Your task to perform on an android device: Check the weather Image 0: 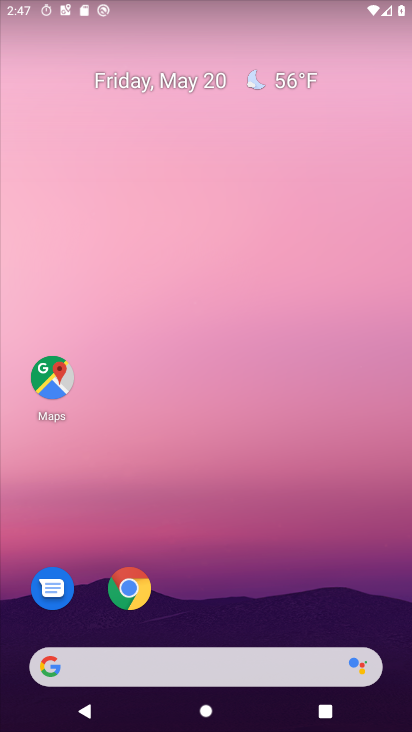
Step 0: click (228, 672)
Your task to perform on an android device: Check the weather Image 1: 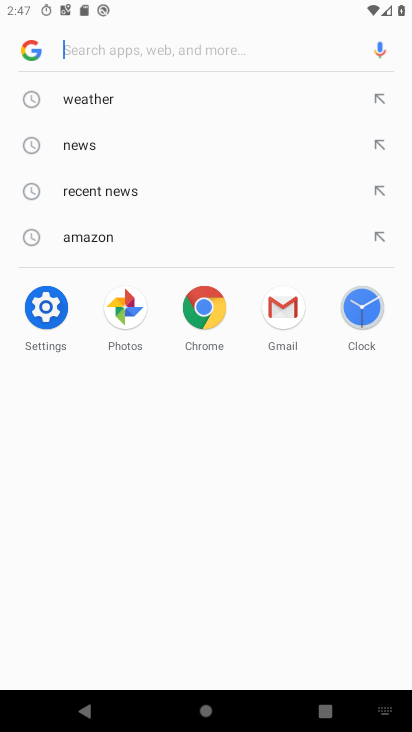
Step 1: click (144, 101)
Your task to perform on an android device: Check the weather Image 2: 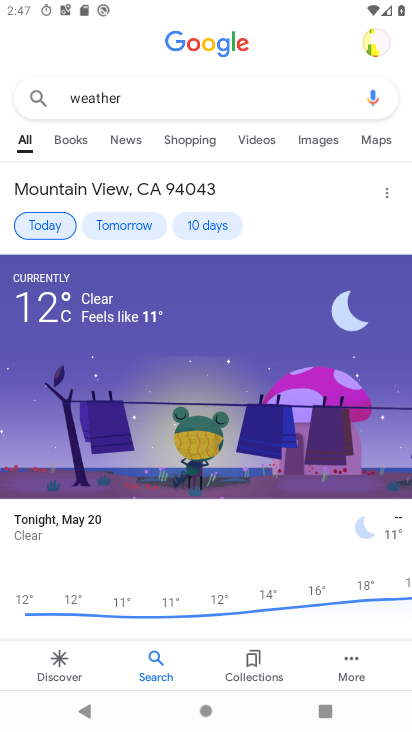
Step 2: task complete